Your task to perform on an android device: toggle data saver in the chrome app Image 0: 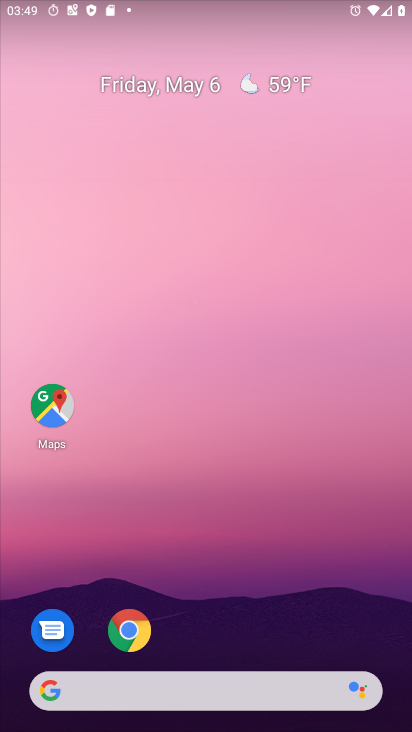
Step 0: click (137, 642)
Your task to perform on an android device: toggle data saver in the chrome app Image 1: 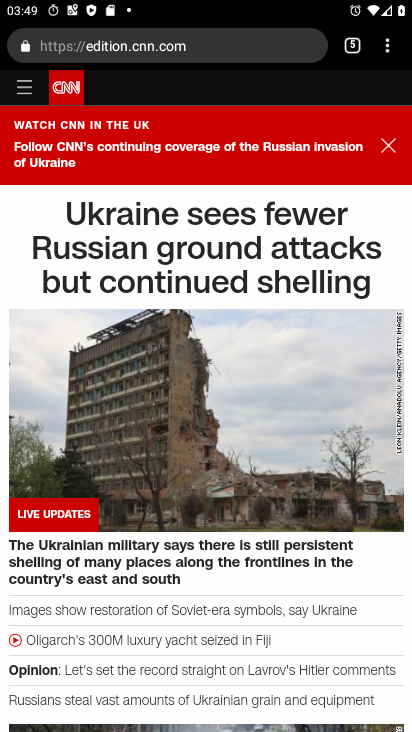
Step 1: drag from (393, 54) to (228, 505)
Your task to perform on an android device: toggle data saver in the chrome app Image 2: 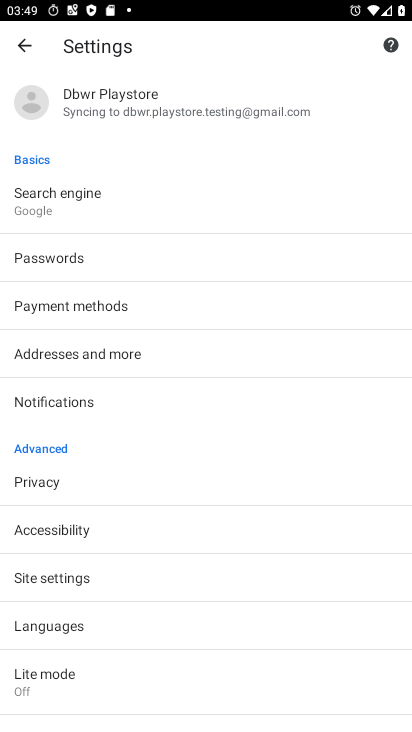
Step 2: click (82, 668)
Your task to perform on an android device: toggle data saver in the chrome app Image 3: 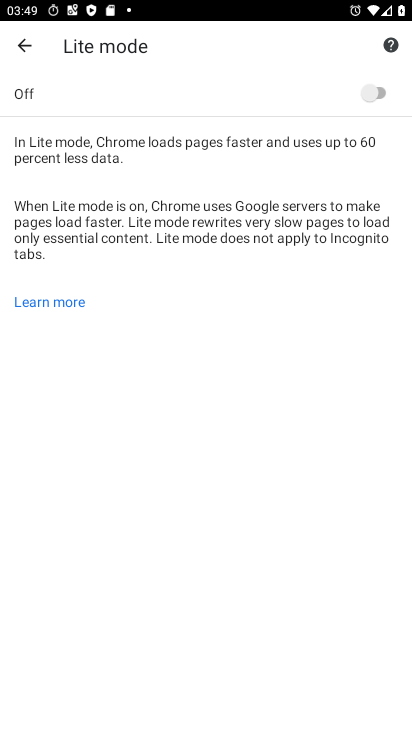
Step 3: click (379, 95)
Your task to perform on an android device: toggle data saver in the chrome app Image 4: 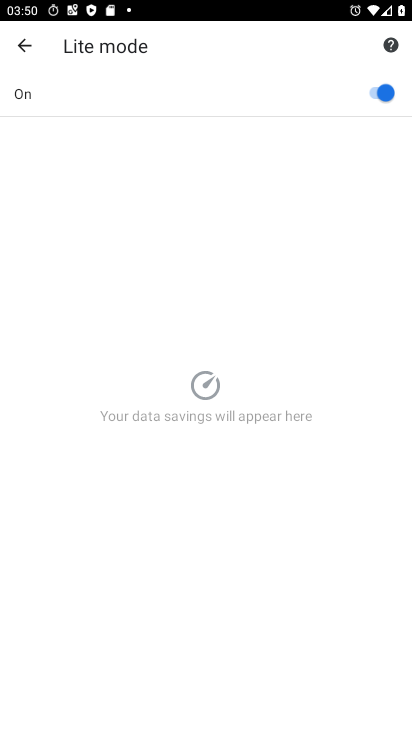
Step 4: task complete